Your task to perform on an android device: View the shopping cart on target. Search for jbl charge 4 on target, select the first entry, add it to the cart, then select checkout. Image 0: 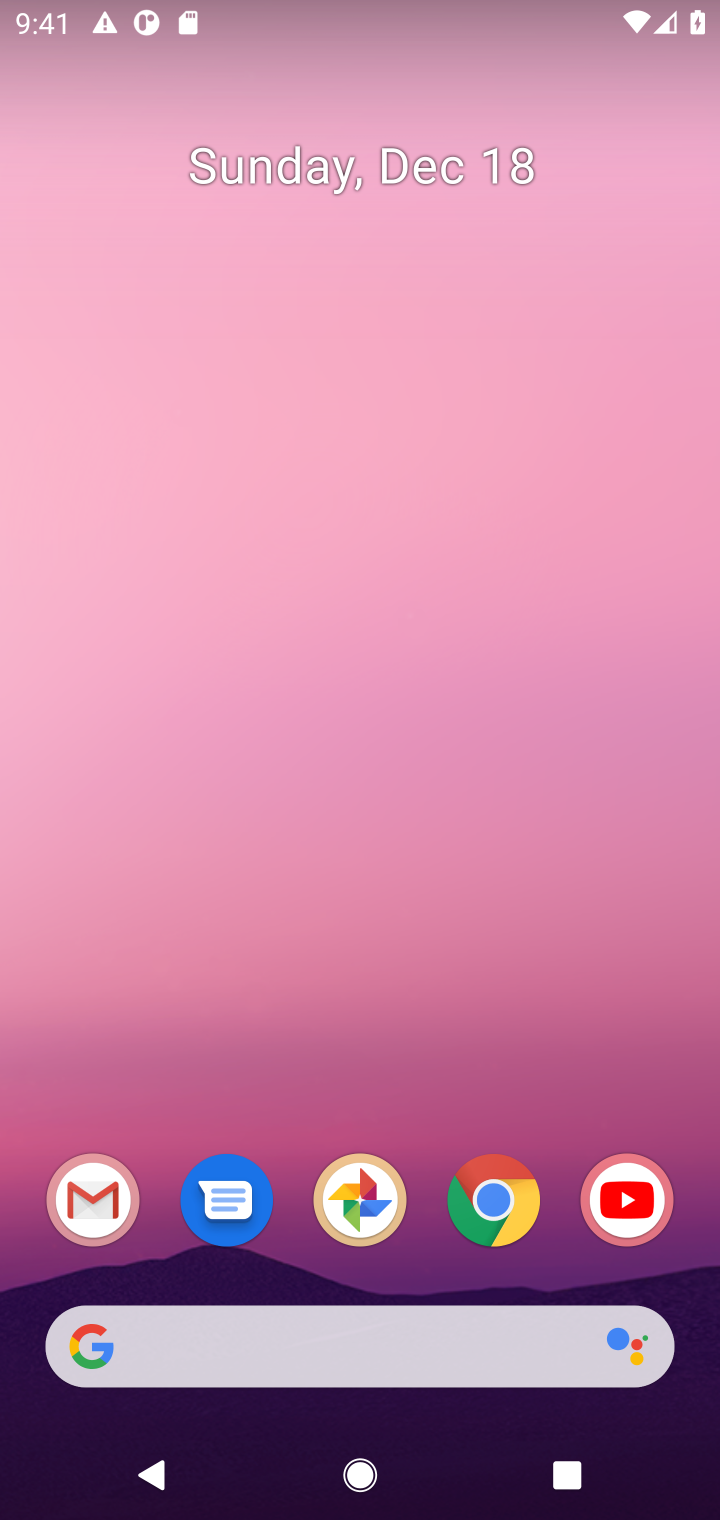
Step 0: click (497, 1195)
Your task to perform on an android device: View the shopping cart on target. Search for jbl charge 4 on target, select the first entry, add it to the cart, then select checkout. Image 1: 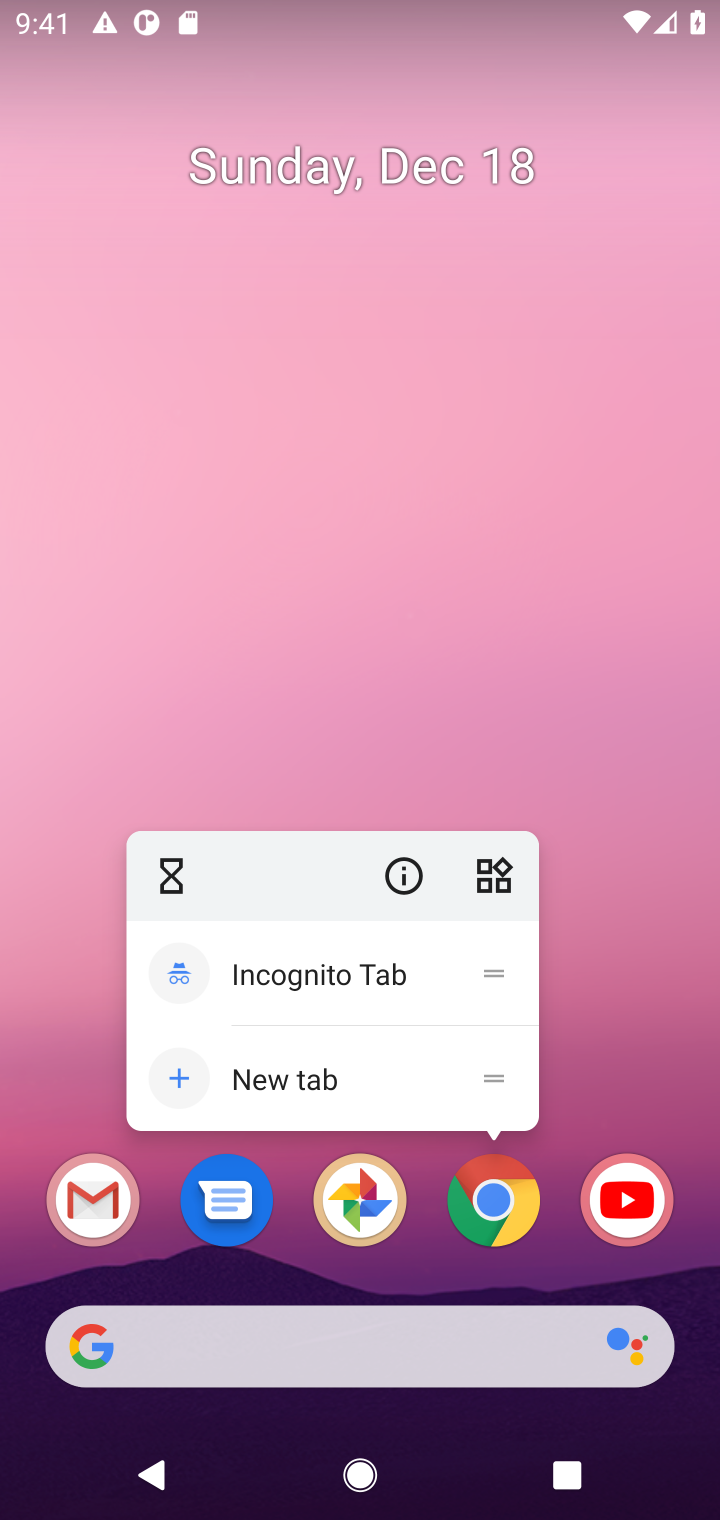
Step 1: click (497, 1212)
Your task to perform on an android device: View the shopping cart on target. Search for jbl charge 4 on target, select the first entry, add it to the cart, then select checkout. Image 2: 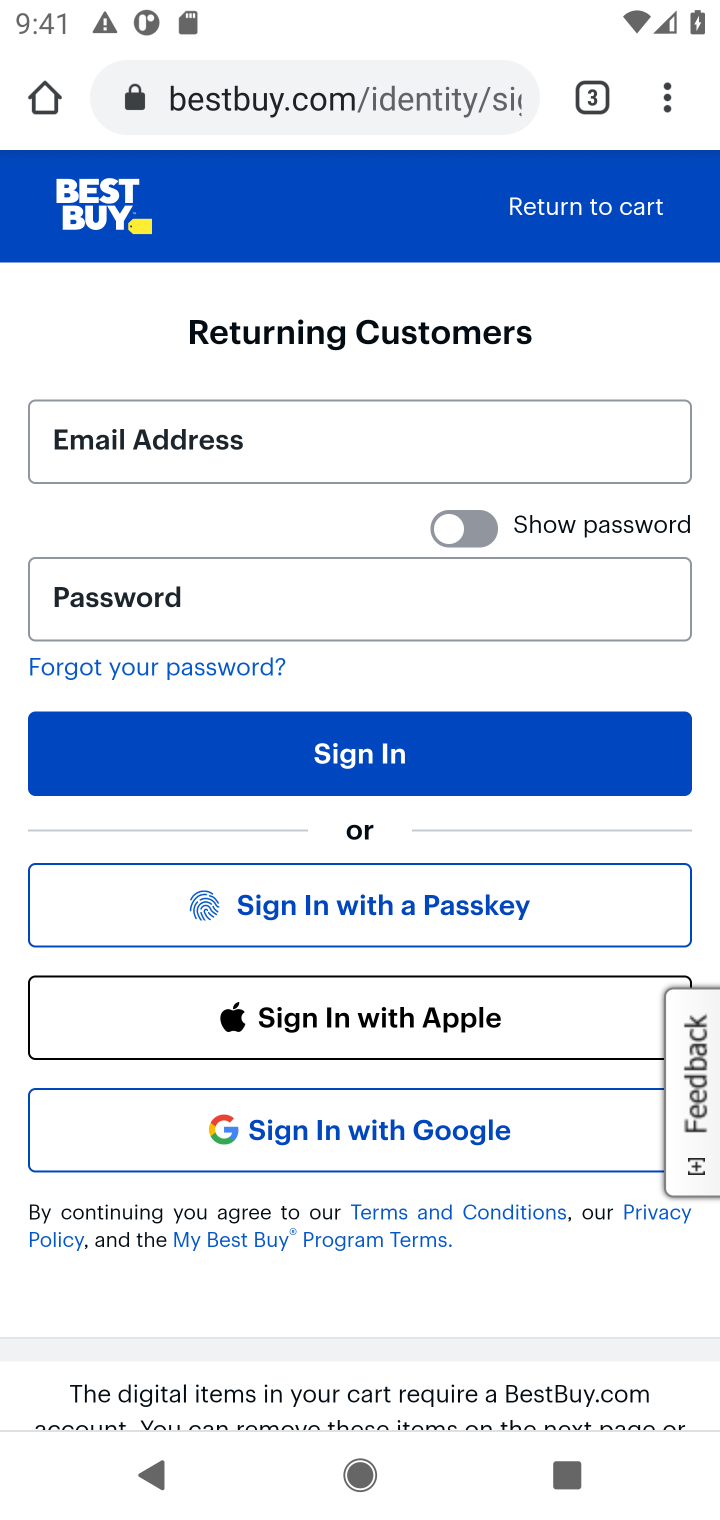
Step 2: click (269, 116)
Your task to perform on an android device: View the shopping cart on target. Search for jbl charge 4 on target, select the first entry, add it to the cart, then select checkout. Image 3: 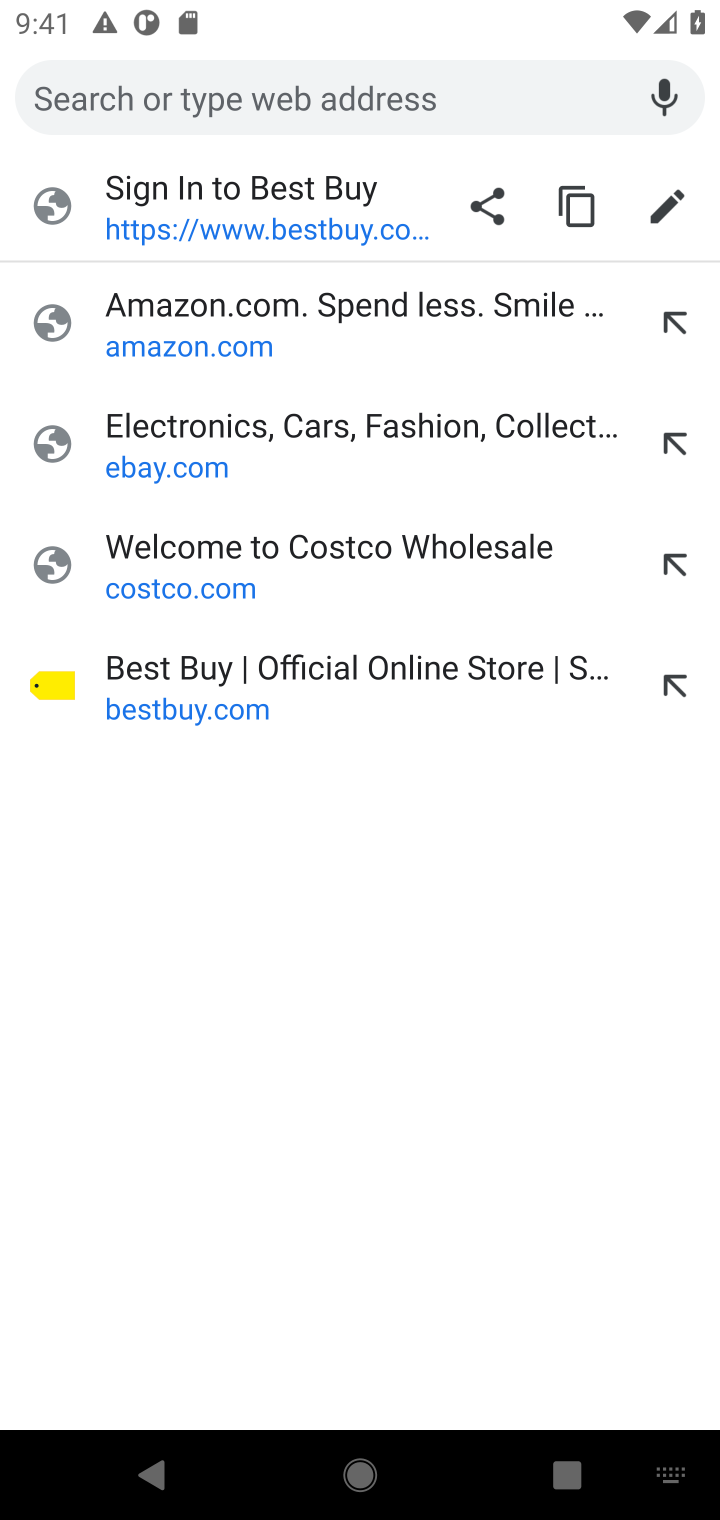
Step 3: type "target.com"
Your task to perform on an android device: View the shopping cart on target. Search for jbl charge 4 on target, select the first entry, add it to the cart, then select checkout. Image 4: 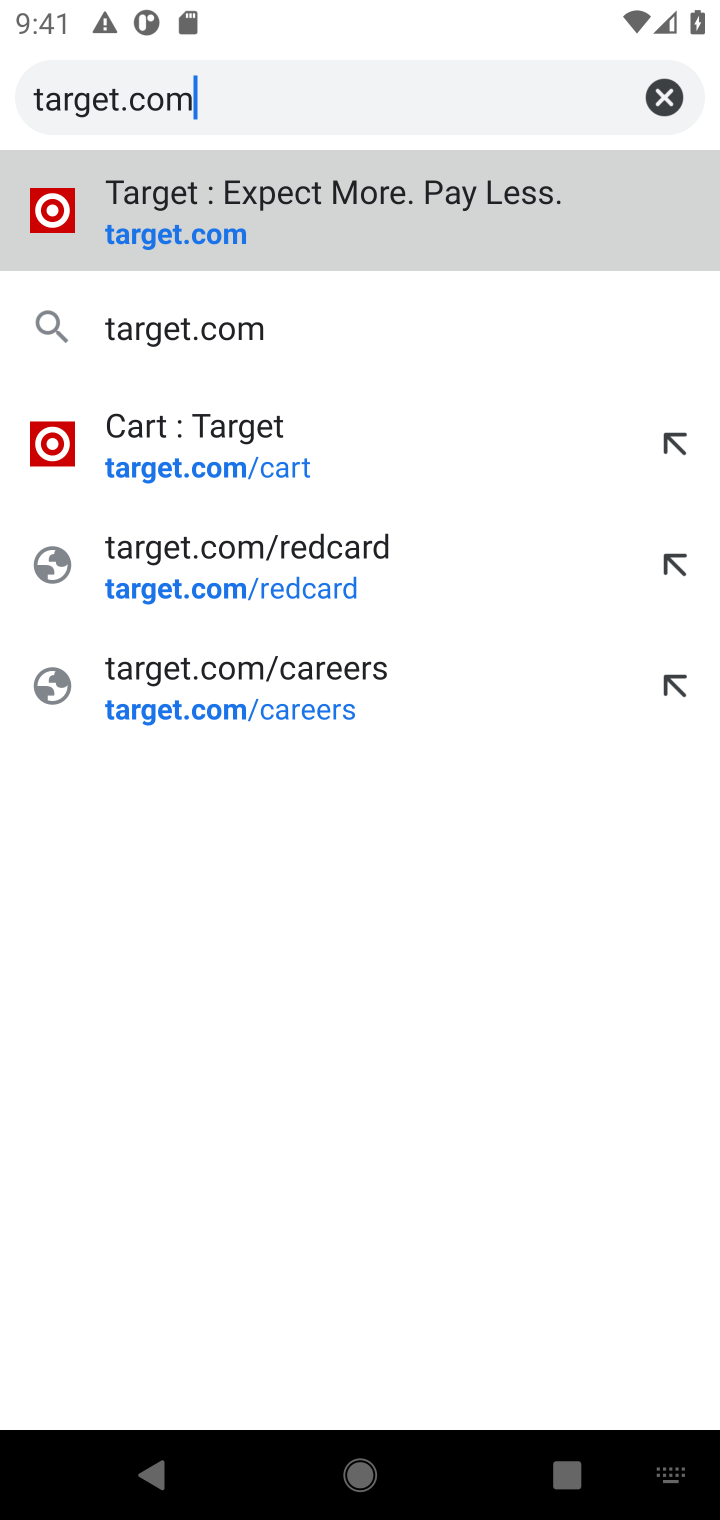
Step 4: click (149, 237)
Your task to perform on an android device: View the shopping cart on target. Search for jbl charge 4 on target, select the first entry, add it to the cart, then select checkout. Image 5: 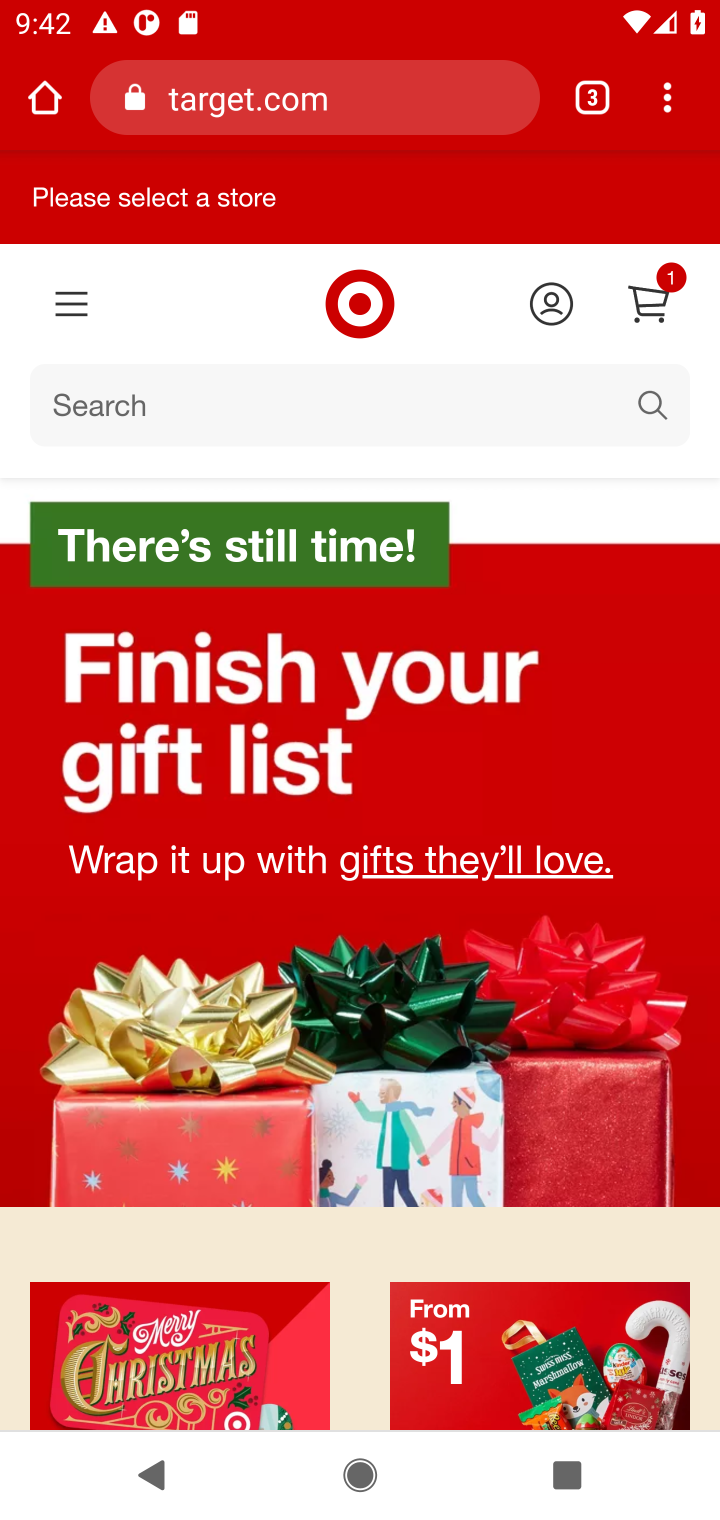
Step 5: click (650, 306)
Your task to perform on an android device: View the shopping cart on target. Search for jbl charge 4 on target, select the first entry, add it to the cart, then select checkout. Image 6: 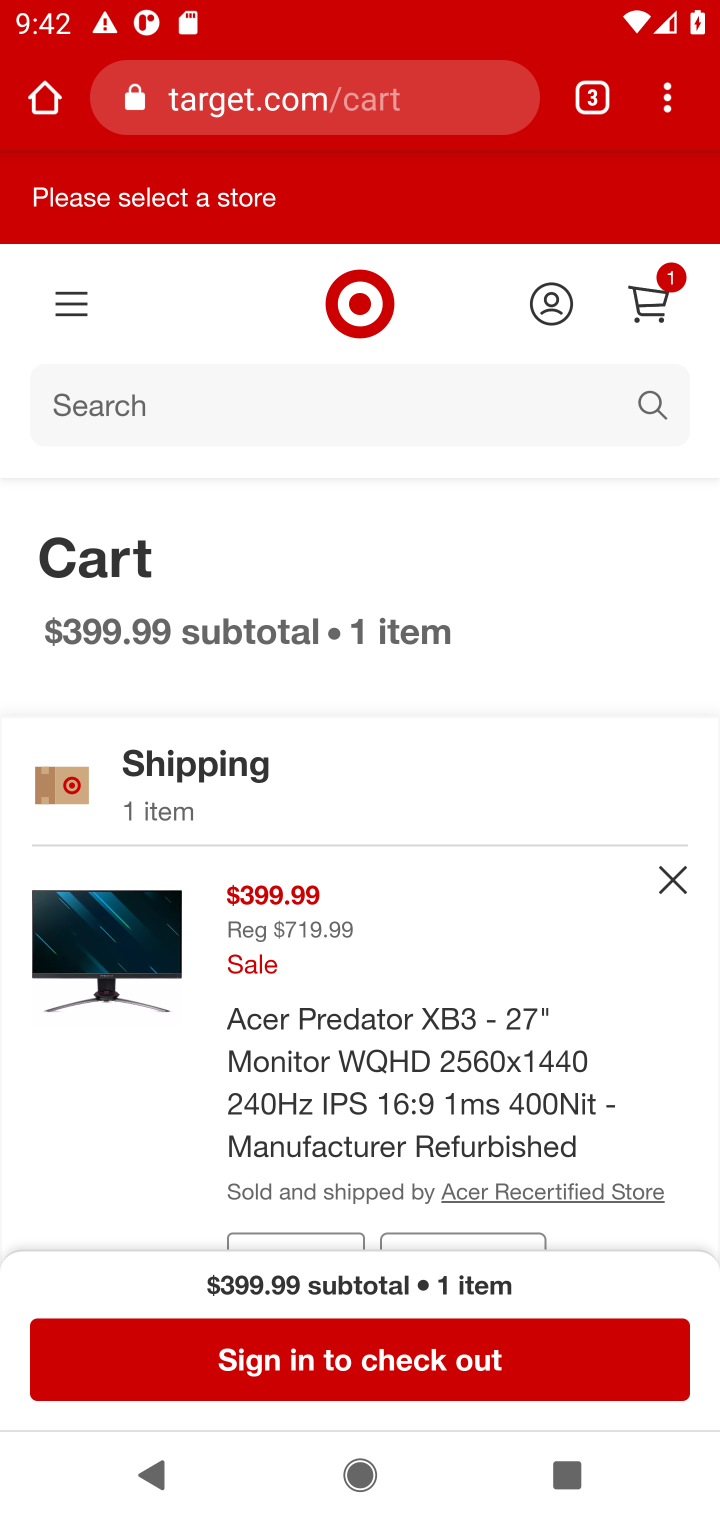
Step 6: click (131, 405)
Your task to perform on an android device: View the shopping cart on target. Search for jbl charge 4 on target, select the first entry, add it to the cart, then select checkout. Image 7: 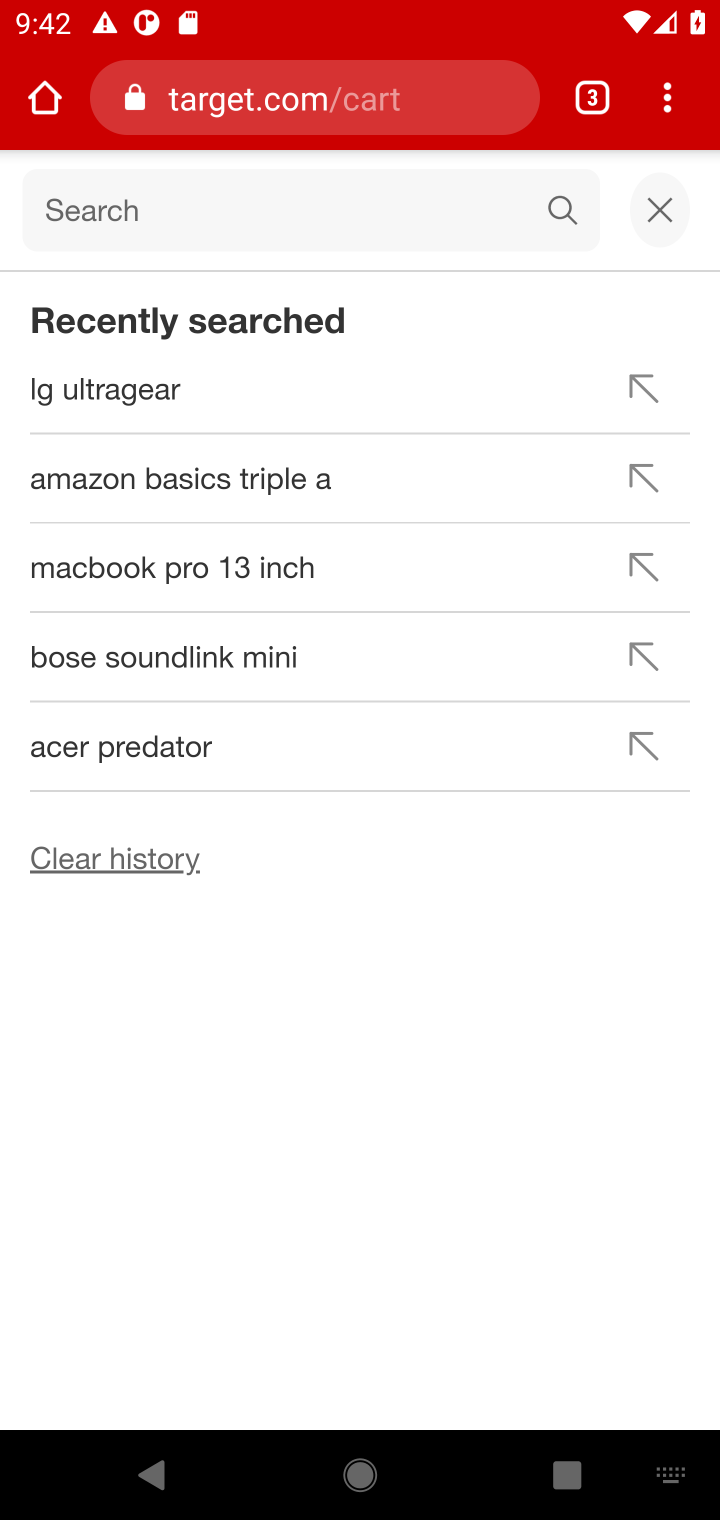
Step 7: type "jbl charge 4"
Your task to perform on an android device: View the shopping cart on target. Search for jbl charge 4 on target, select the first entry, add it to the cart, then select checkout. Image 8: 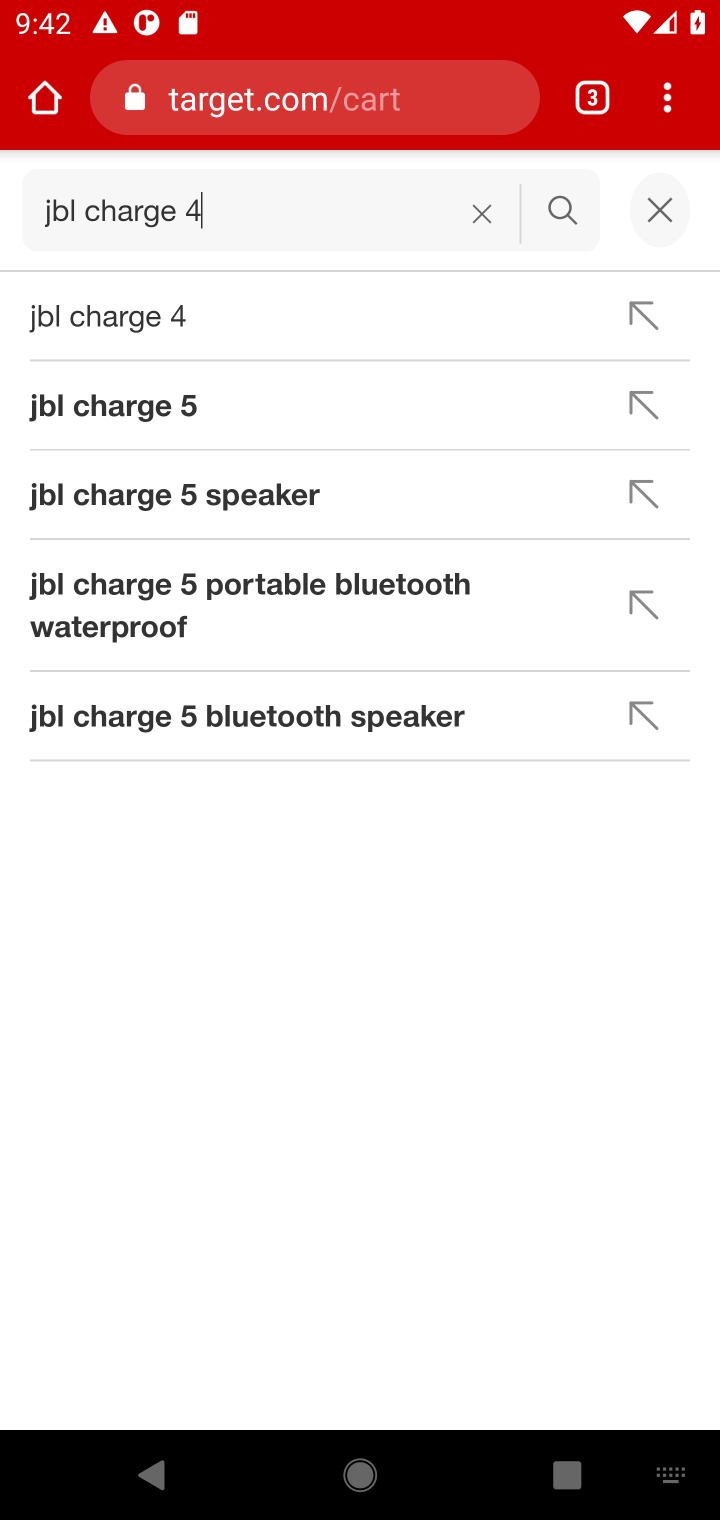
Step 8: click (71, 329)
Your task to perform on an android device: View the shopping cart on target. Search for jbl charge 4 on target, select the first entry, add it to the cart, then select checkout. Image 9: 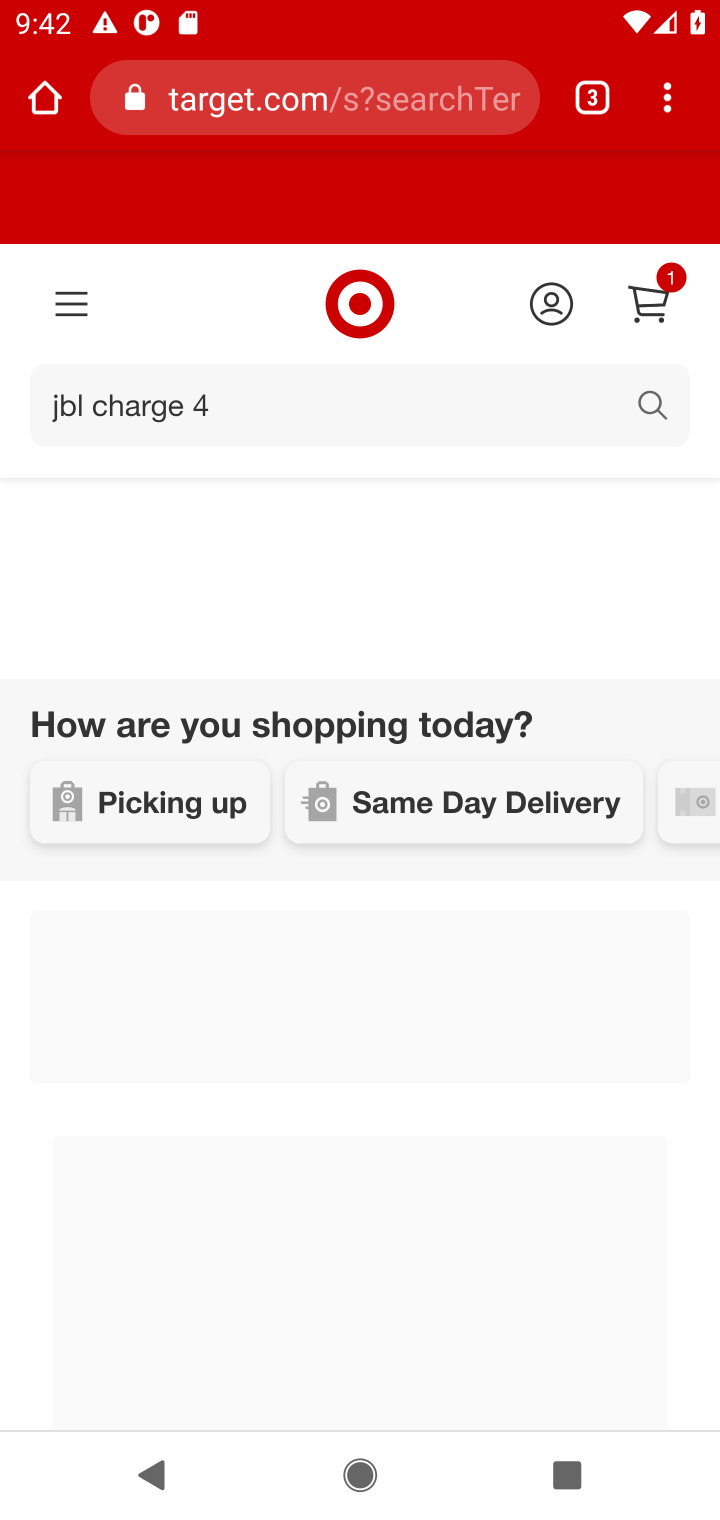
Step 9: task complete